Your task to perform on an android device: Open battery settings Image 0: 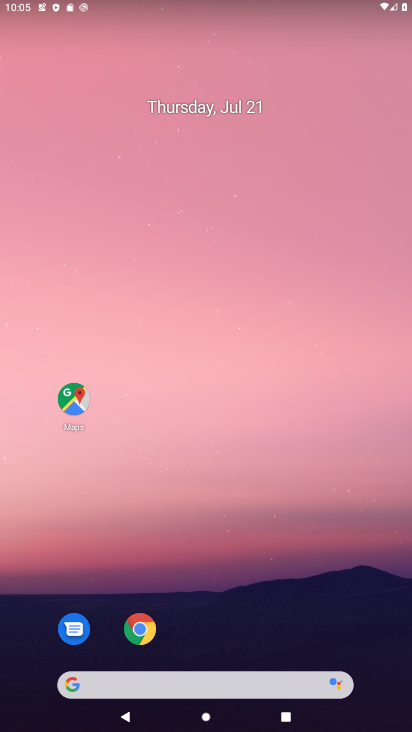
Step 0: press home button
Your task to perform on an android device: Open battery settings Image 1: 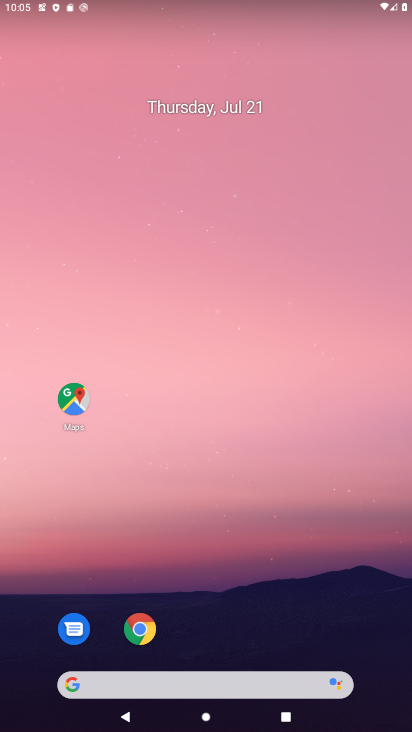
Step 1: drag from (381, 657) to (315, 185)
Your task to perform on an android device: Open battery settings Image 2: 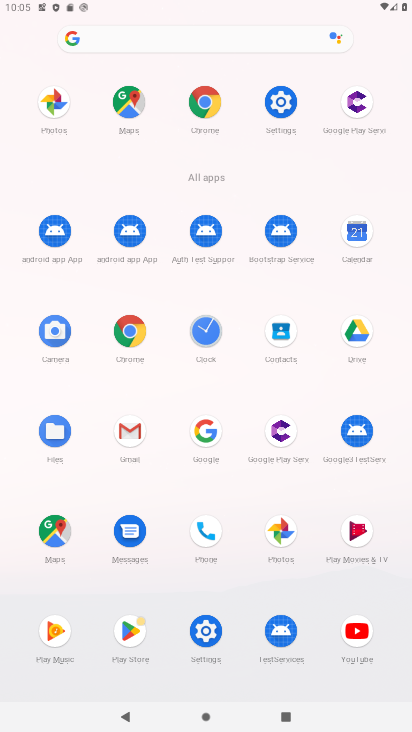
Step 2: click (209, 630)
Your task to perform on an android device: Open battery settings Image 3: 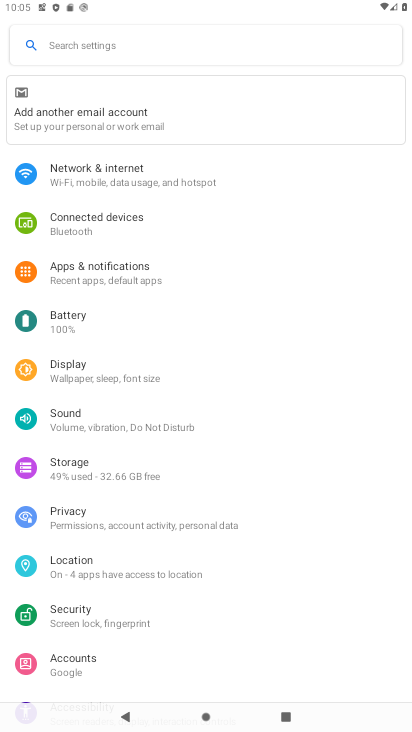
Step 3: click (52, 316)
Your task to perform on an android device: Open battery settings Image 4: 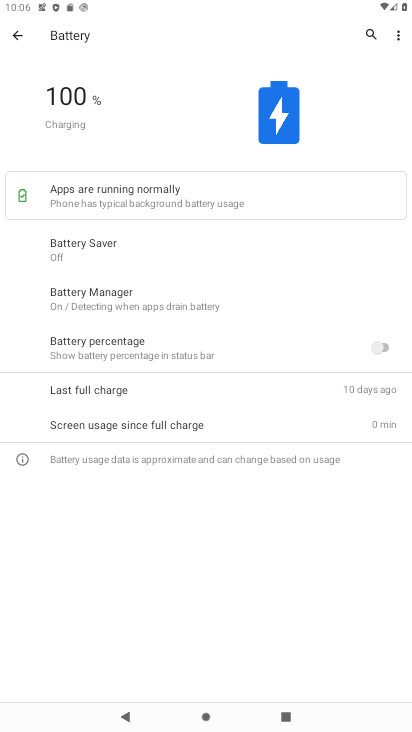
Step 4: task complete